Your task to perform on an android device: Add "logitech g910" to the cart on bestbuy, then select checkout. Image 0: 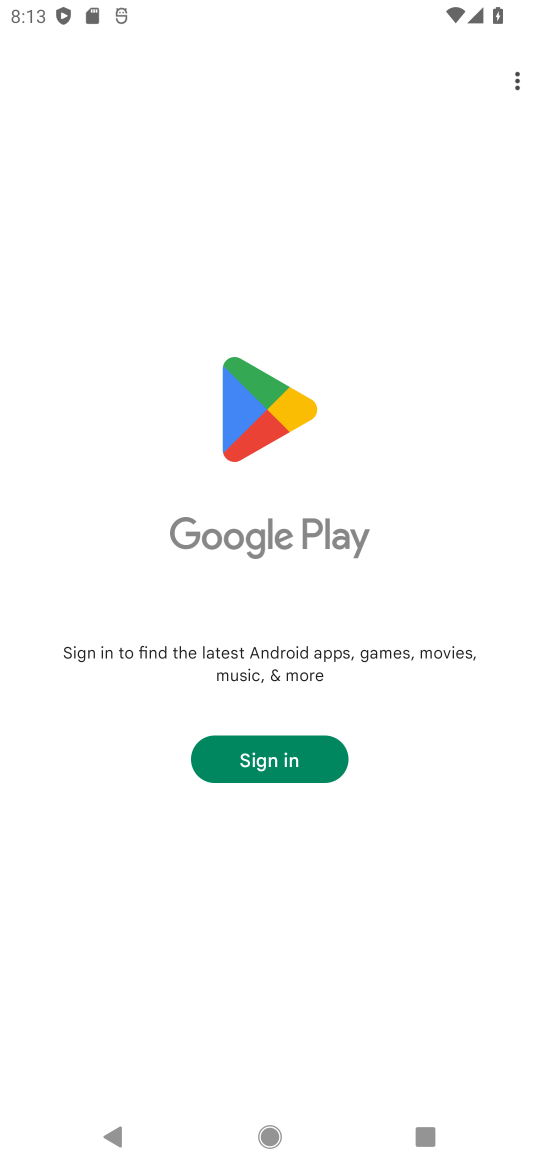
Step 0: click (279, 763)
Your task to perform on an android device: Add "logitech g910" to the cart on bestbuy, then select checkout. Image 1: 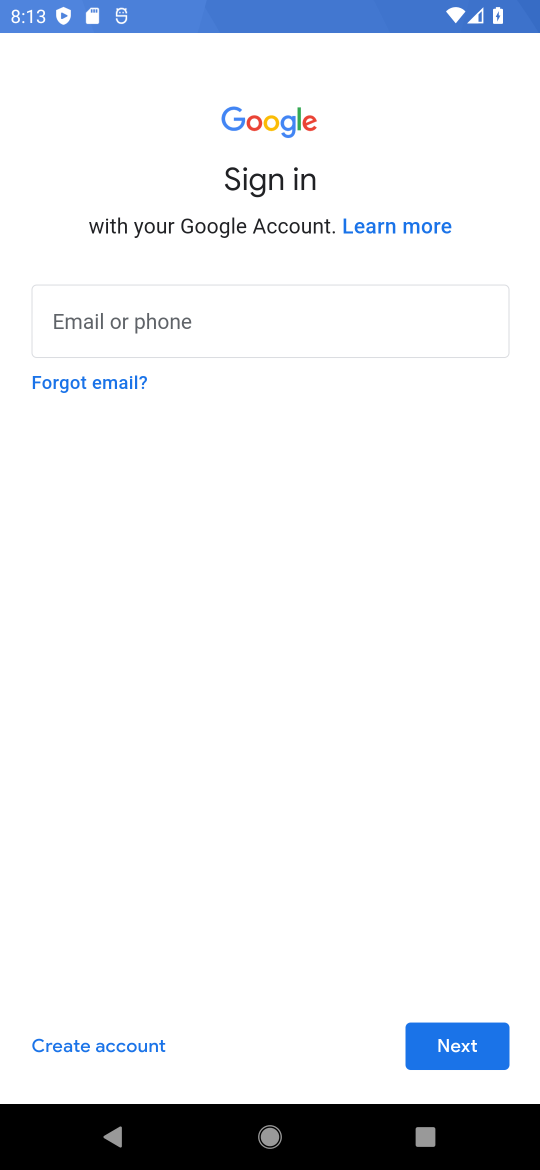
Step 1: press back button
Your task to perform on an android device: Add "logitech g910" to the cart on bestbuy, then select checkout. Image 2: 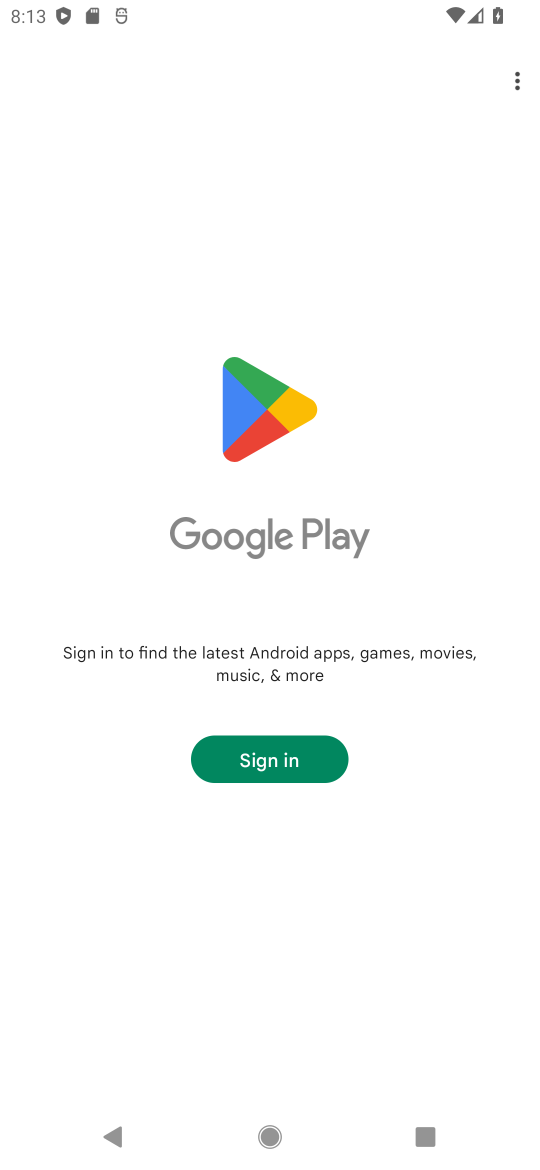
Step 2: press back button
Your task to perform on an android device: Add "logitech g910" to the cart on bestbuy, then select checkout. Image 3: 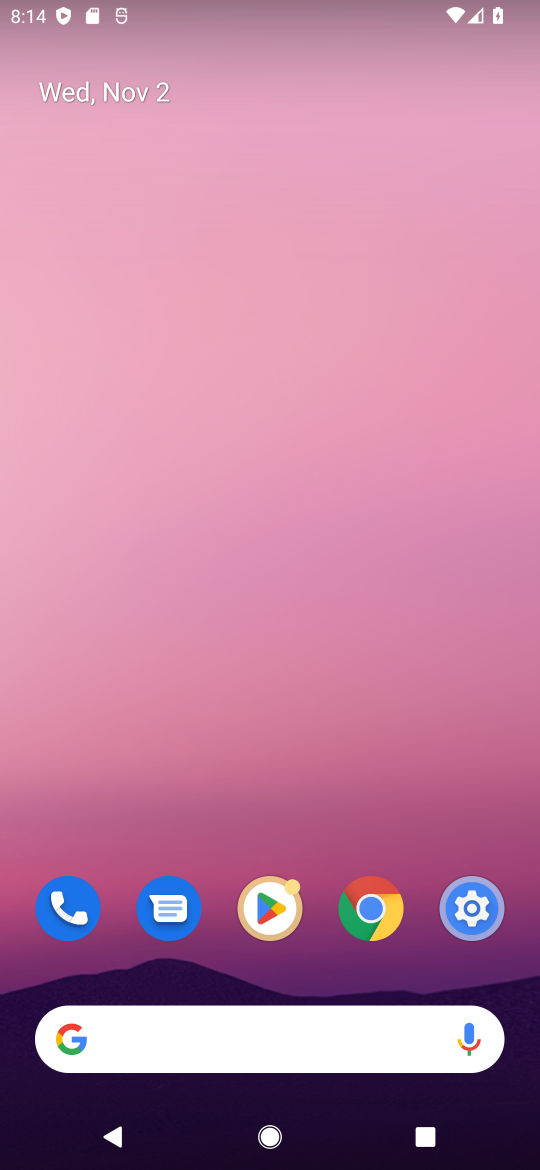
Step 3: click (332, 1020)
Your task to perform on an android device: Add "logitech g910" to the cart on bestbuy, then select checkout. Image 4: 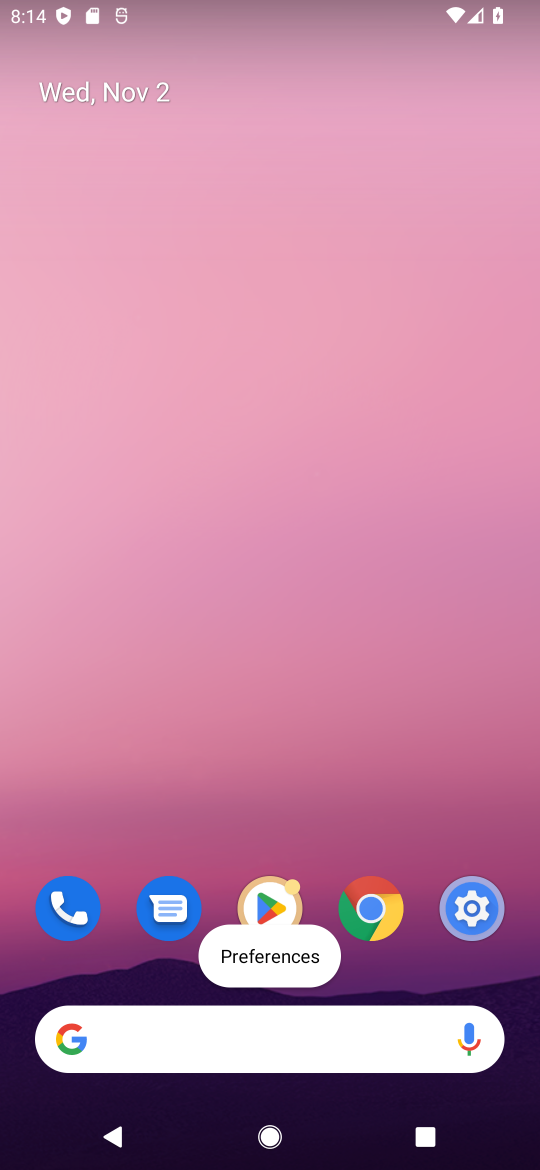
Step 4: click (279, 1057)
Your task to perform on an android device: Add "logitech g910" to the cart on bestbuy, then select checkout. Image 5: 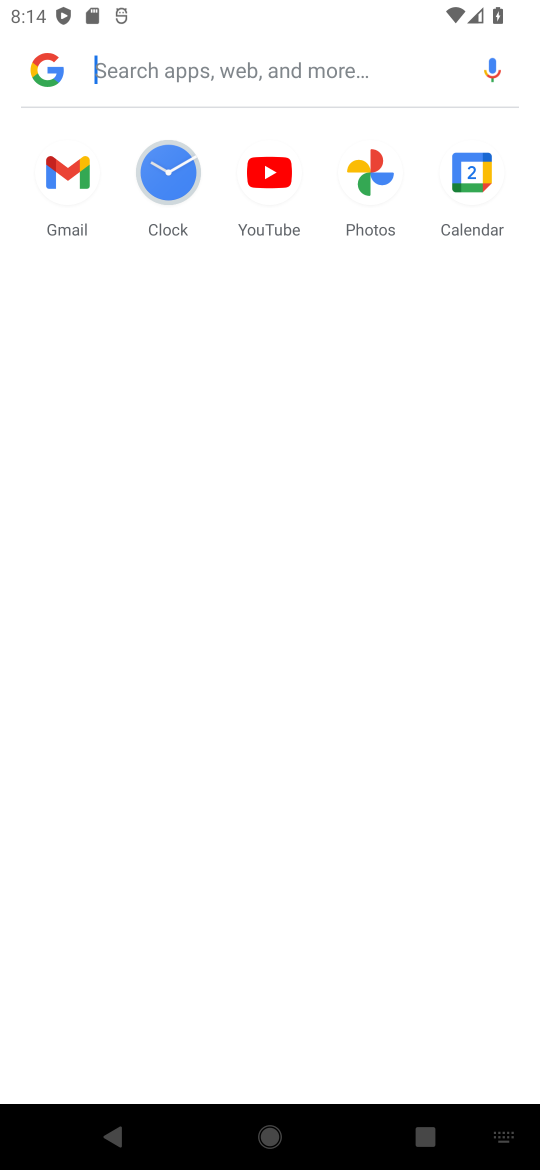
Step 5: type "bestbuy"
Your task to perform on an android device: Add "logitech g910" to the cart on bestbuy, then select checkout. Image 6: 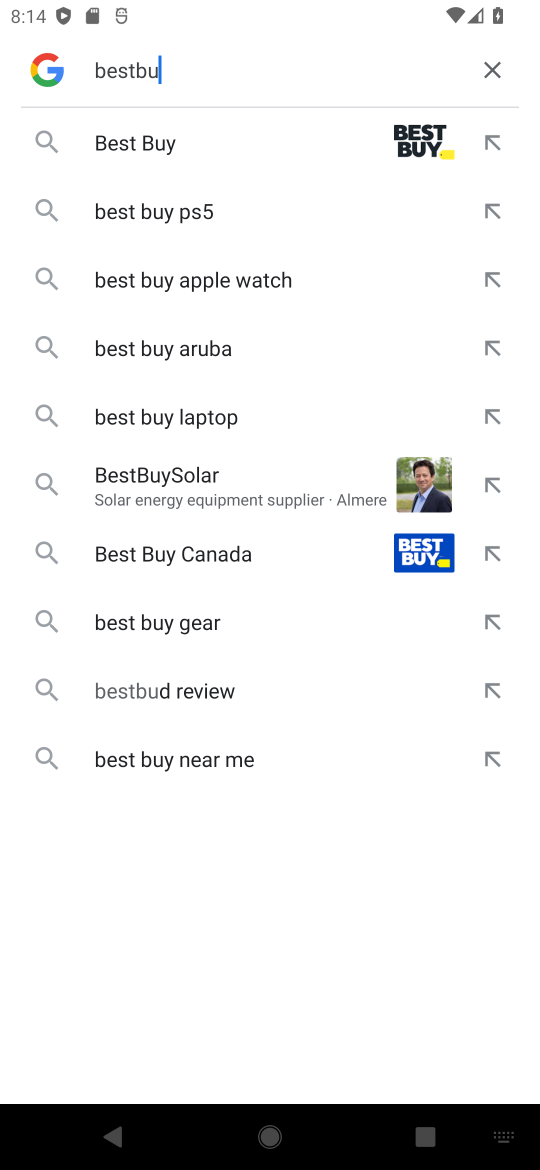
Step 6: type ""
Your task to perform on an android device: Add "logitech g910" to the cart on bestbuy, then select checkout. Image 7: 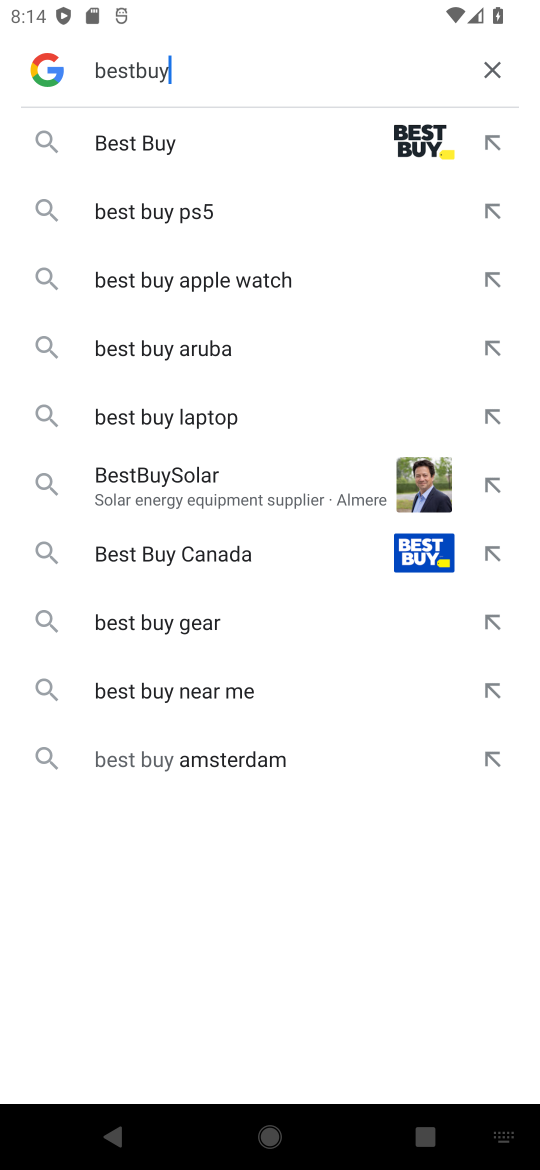
Step 7: press enter
Your task to perform on an android device: Add "logitech g910" to the cart on bestbuy, then select checkout. Image 8: 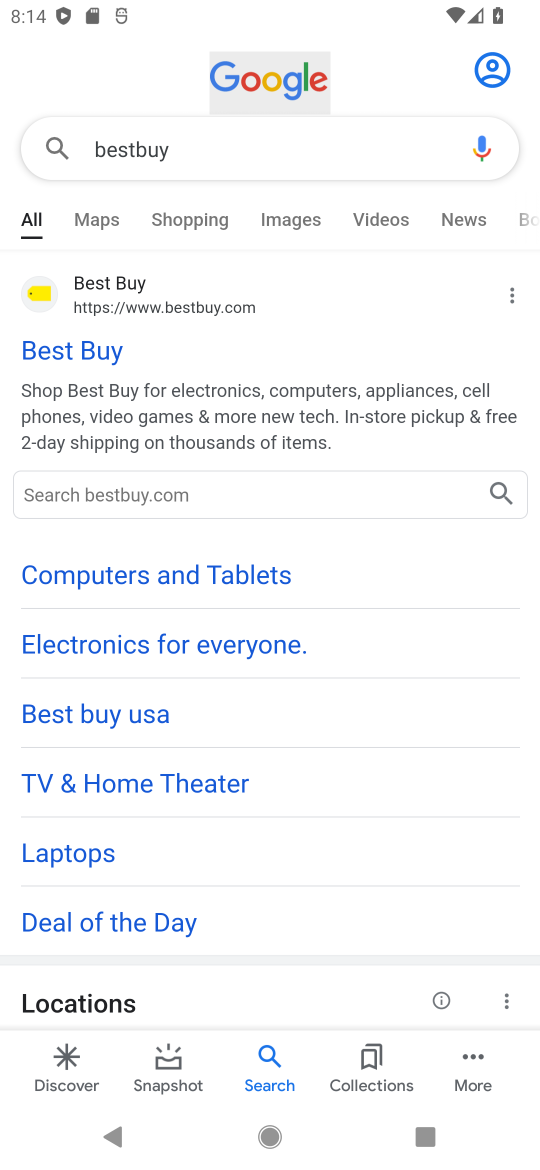
Step 8: click (189, 312)
Your task to perform on an android device: Add "logitech g910" to the cart on bestbuy, then select checkout. Image 9: 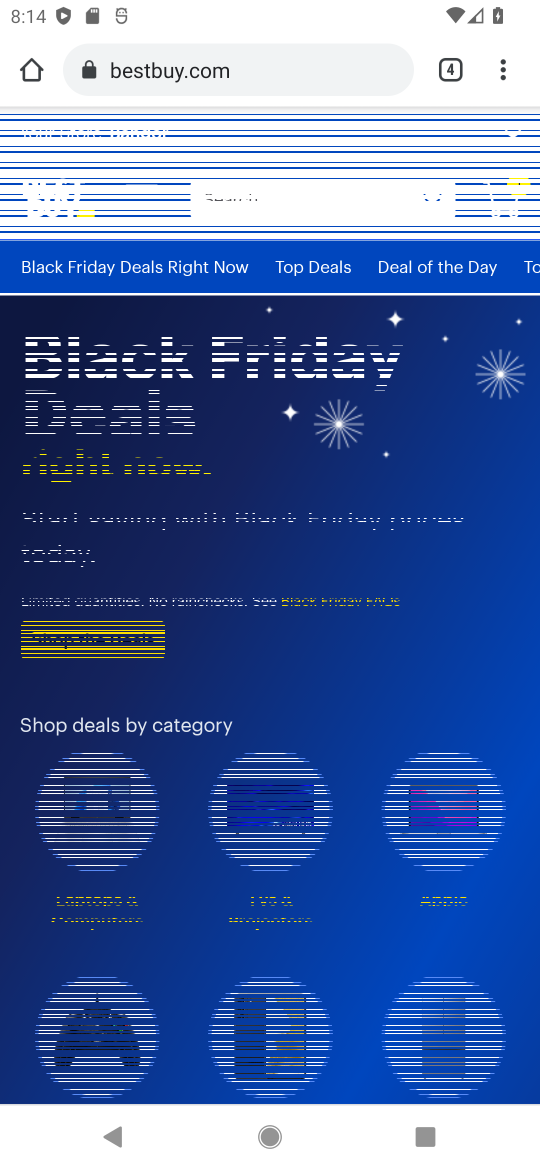
Step 9: click (258, 220)
Your task to perform on an android device: Add "logitech g910" to the cart on bestbuy, then select checkout. Image 10: 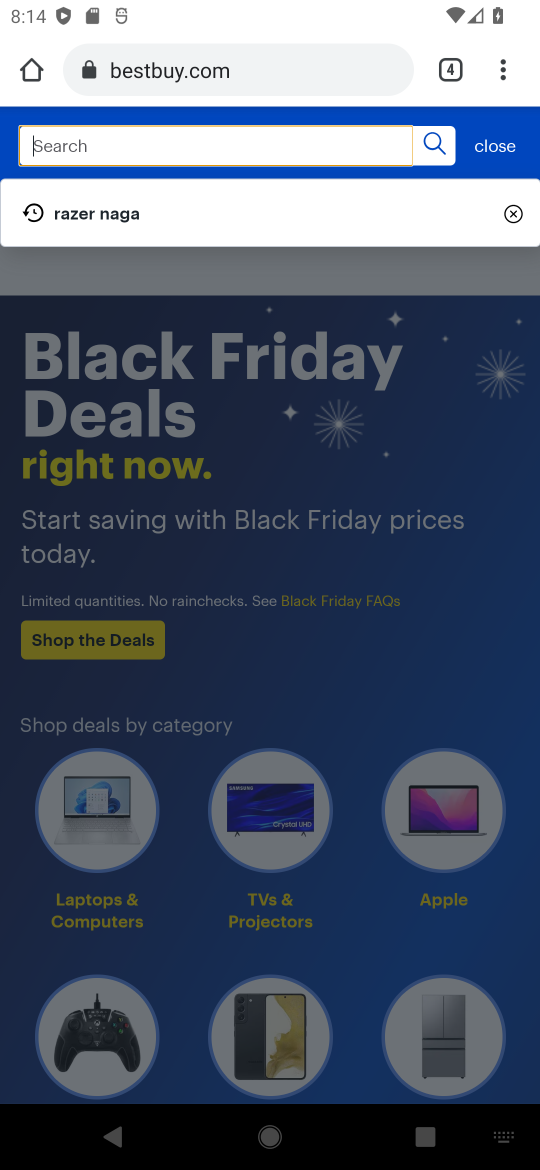
Step 10: click (248, 203)
Your task to perform on an android device: Add "logitech g910" to the cart on bestbuy, then select checkout. Image 11: 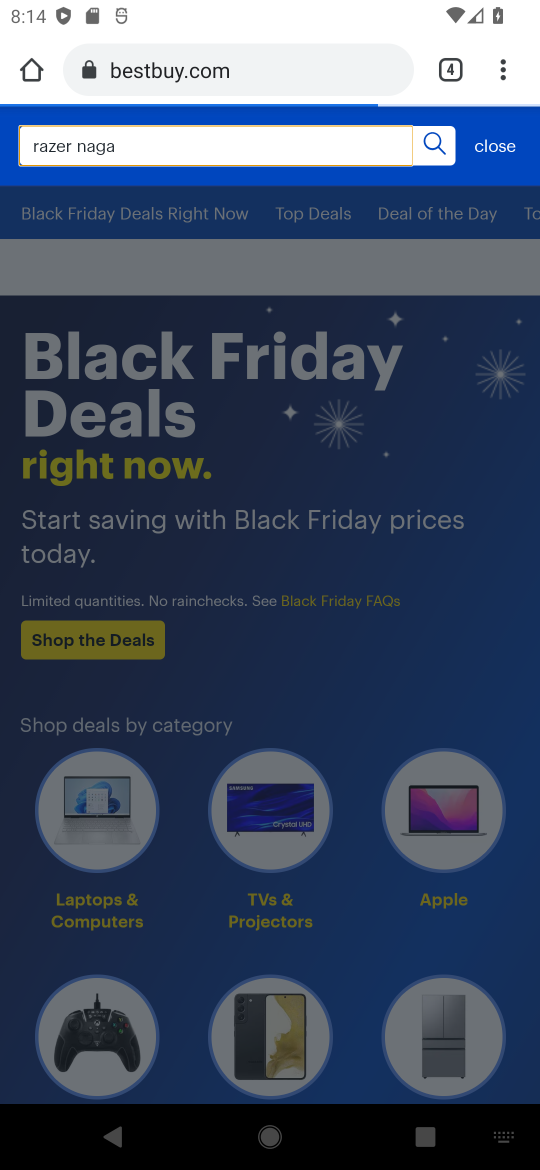
Step 11: click (248, 203)
Your task to perform on an android device: Add "logitech g910" to the cart on bestbuy, then select checkout. Image 12: 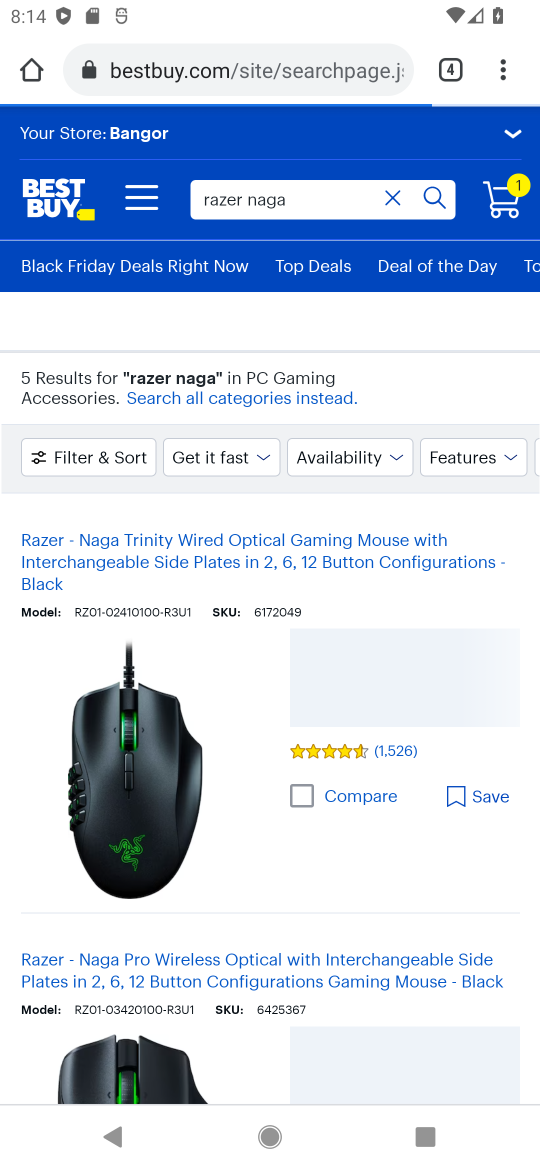
Step 12: click (396, 209)
Your task to perform on an android device: Add "logitech g910" to the cart on bestbuy, then select checkout. Image 13: 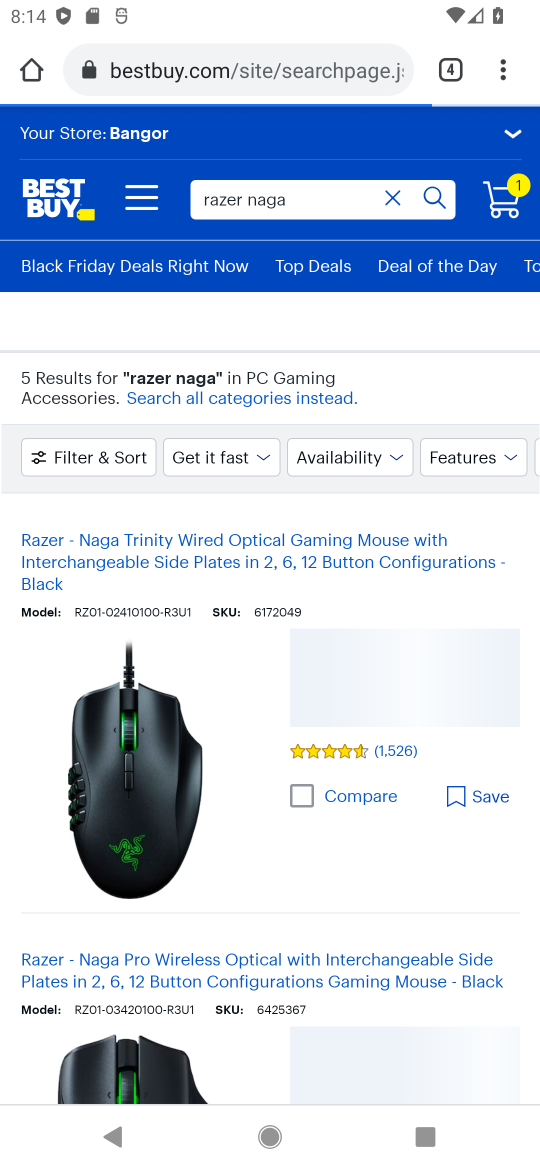
Step 13: click (394, 200)
Your task to perform on an android device: Add "logitech g910" to the cart on bestbuy, then select checkout. Image 14: 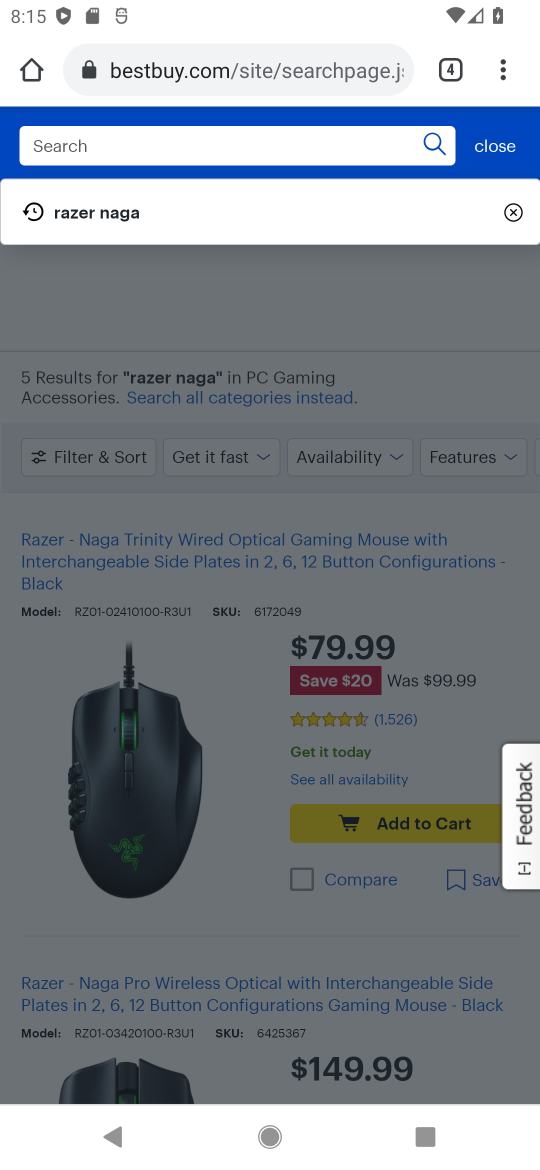
Step 14: click (510, 206)
Your task to perform on an android device: Add "logitech g910" to the cart on bestbuy, then select checkout. Image 15: 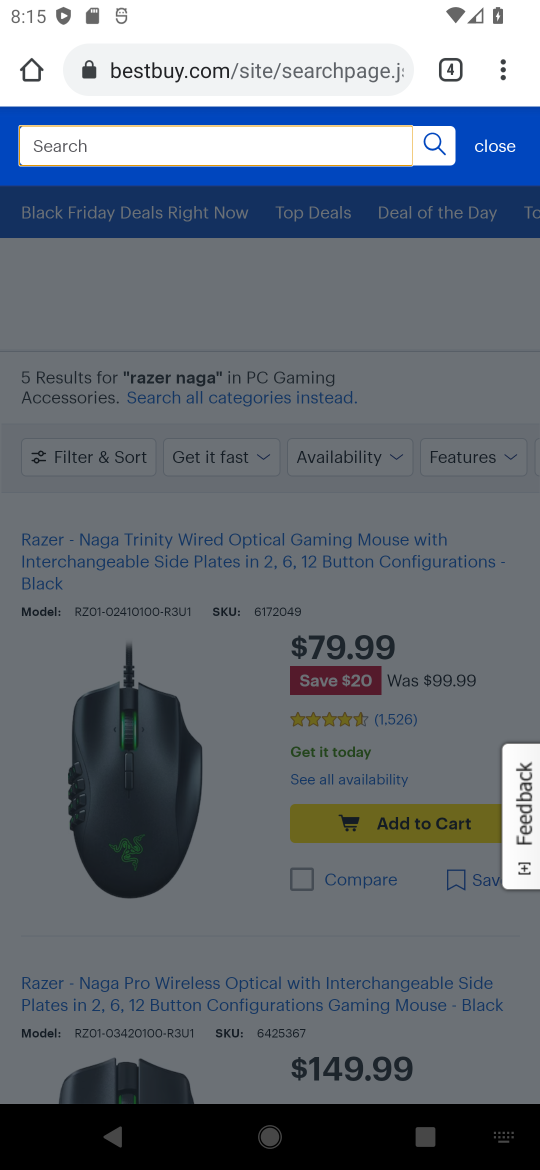
Step 15: click (225, 147)
Your task to perform on an android device: Add "logitech g910" to the cart on bestbuy, then select checkout. Image 16: 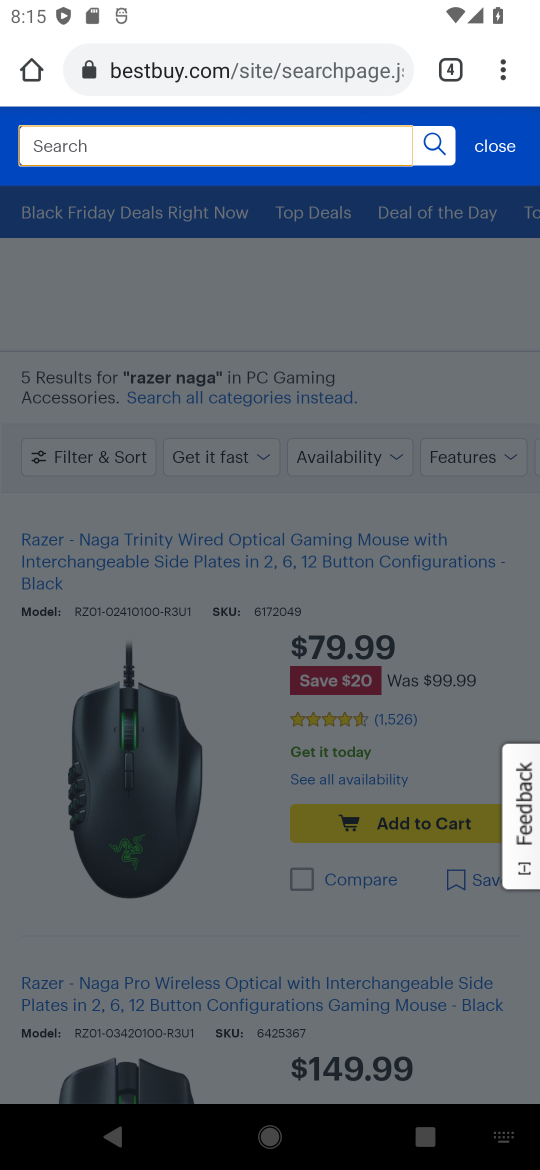
Step 16: press enter
Your task to perform on an android device: Add "logitech g910" to the cart on bestbuy, then select checkout. Image 17: 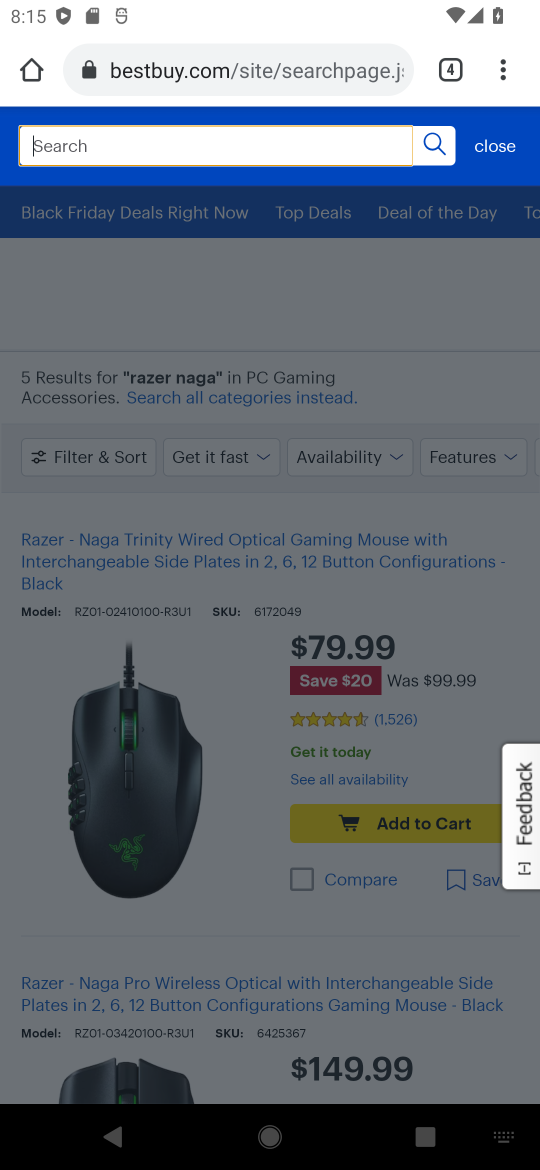
Step 17: type ""logitech g910"
Your task to perform on an android device: Add "logitech g910" to the cart on bestbuy, then select checkout. Image 18: 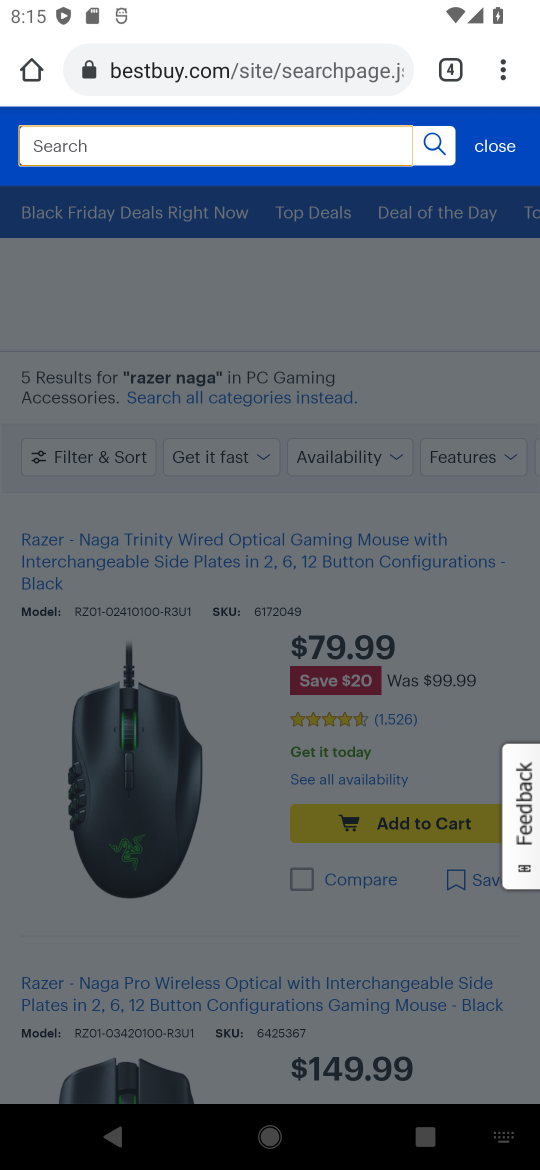
Step 18: type ""
Your task to perform on an android device: Add "logitech g910" to the cart on bestbuy, then select checkout. Image 19: 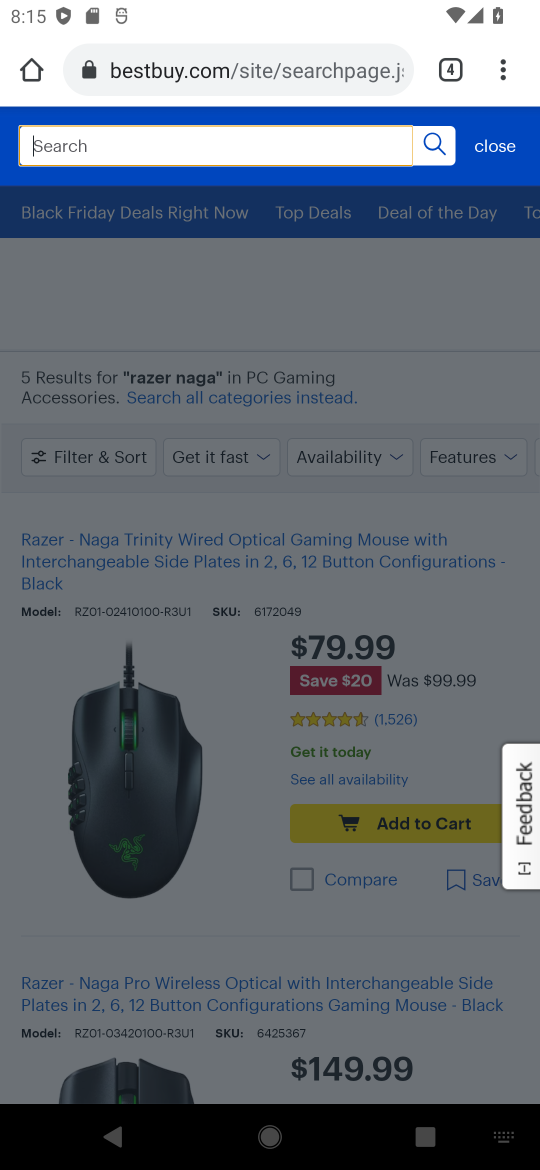
Step 19: press enter
Your task to perform on an android device: Add "logitech g910" to the cart on bestbuy, then select checkout. Image 20: 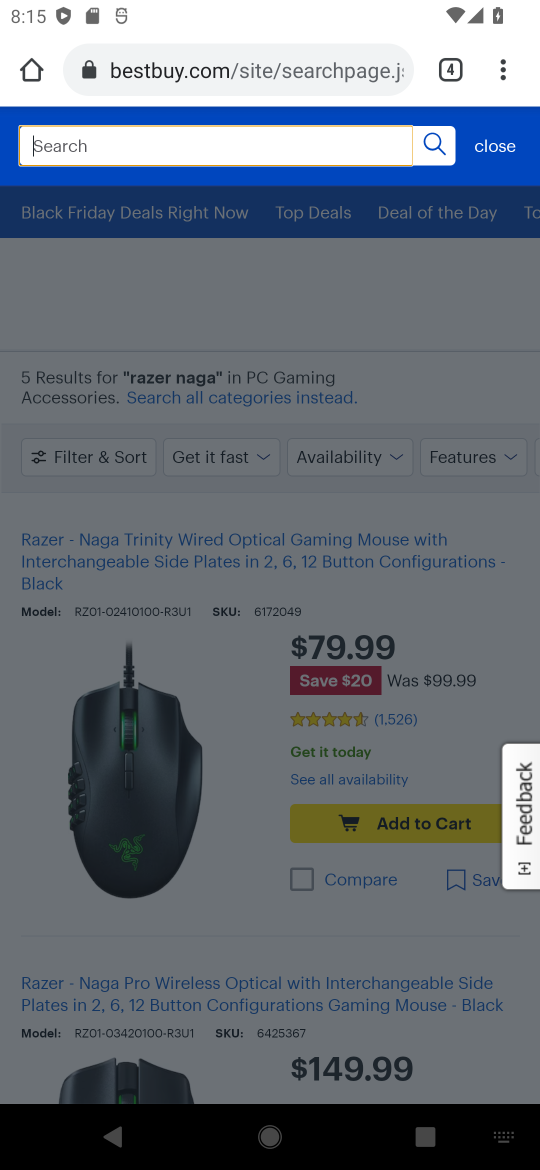
Step 20: press enter
Your task to perform on an android device: Add "logitech g910" to the cart on bestbuy, then select checkout. Image 21: 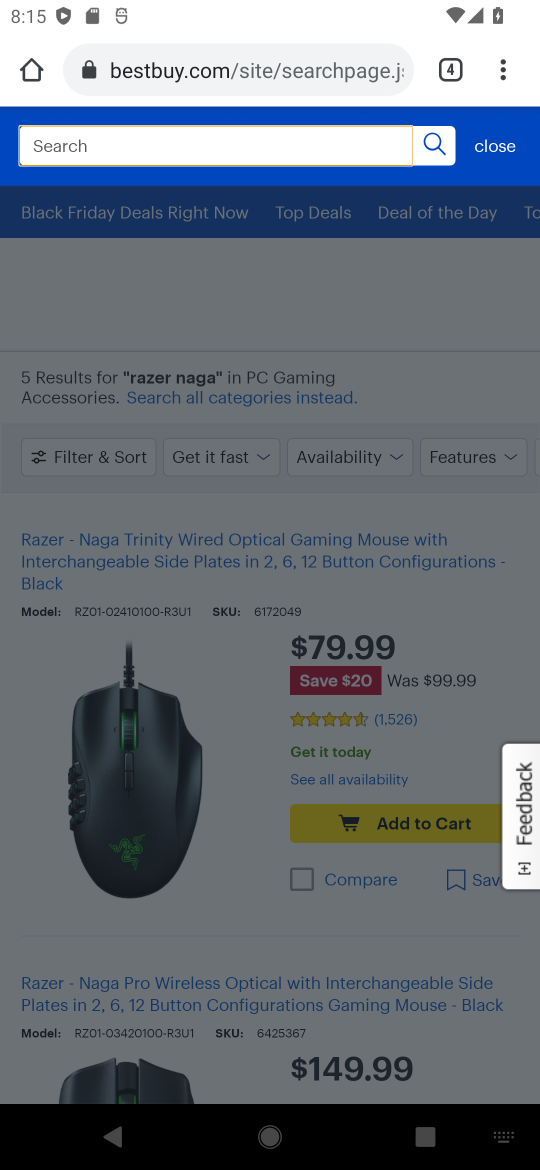
Step 21: type ""logitech g910"
Your task to perform on an android device: Add "logitech g910" to the cart on bestbuy, then select checkout. Image 22: 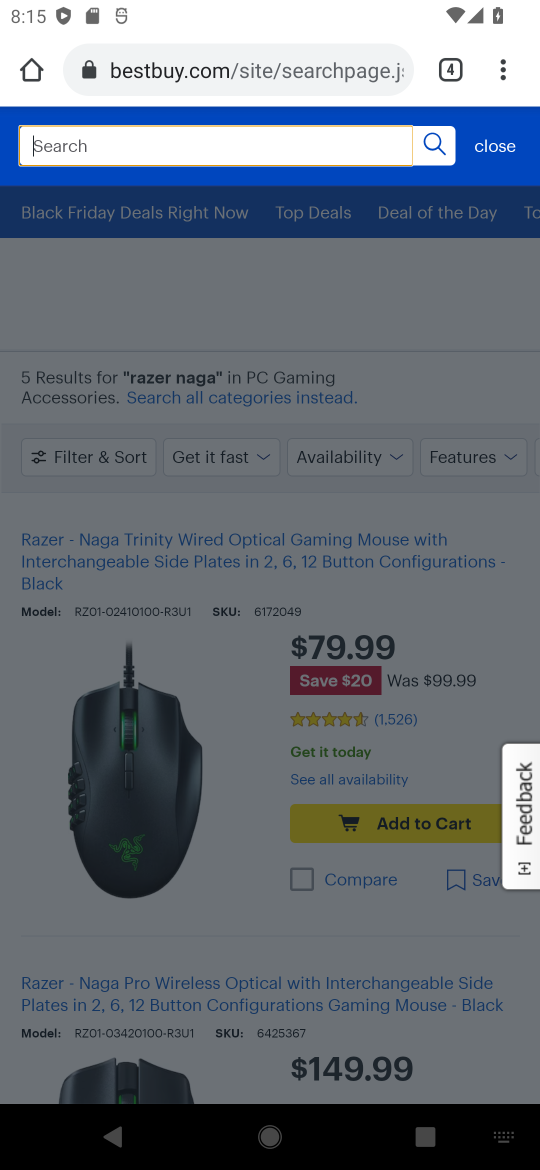
Step 22: press enter
Your task to perform on an android device: Add "logitech g910" to the cart on bestbuy, then select checkout. Image 23: 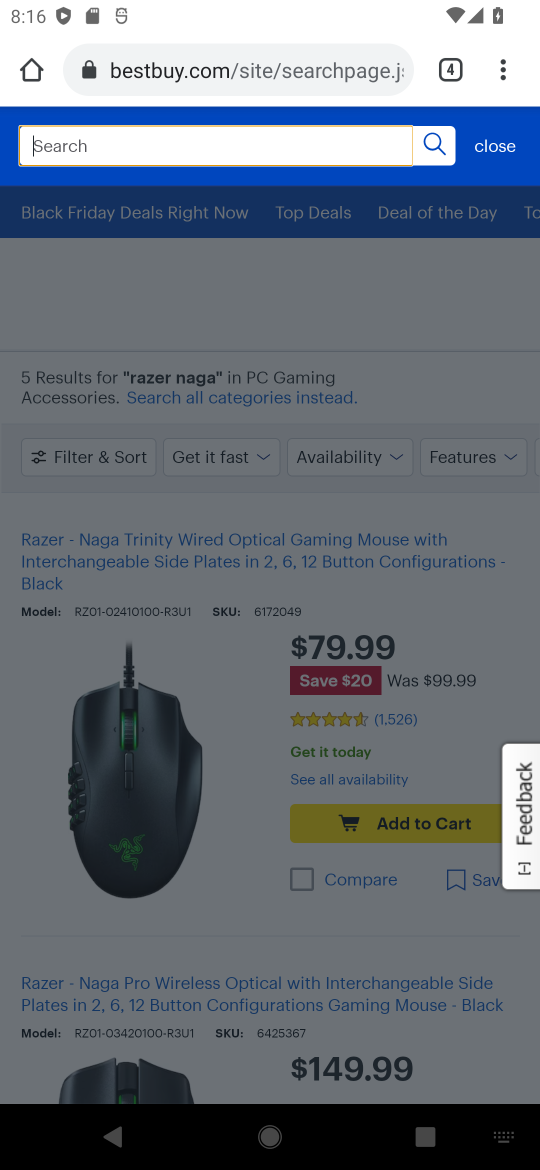
Step 23: press enter
Your task to perform on an android device: Add "logitech g910" to the cart on bestbuy, then select checkout. Image 24: 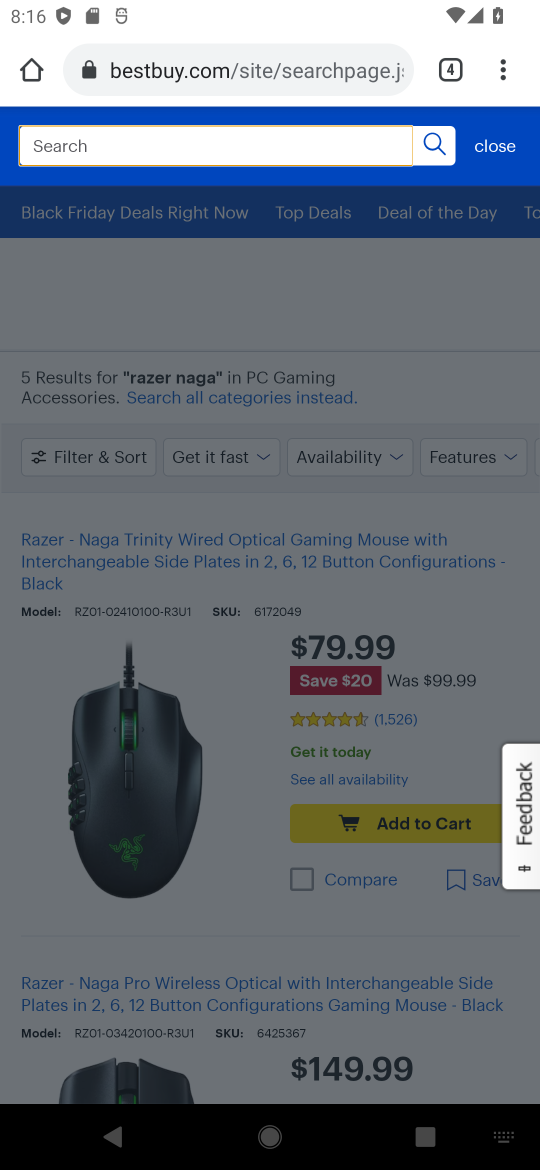
Step 24: press enter
Your task to perform on an android device: Add "logitech g910" to the cart on bestbuy, then select checkout. Image 25: 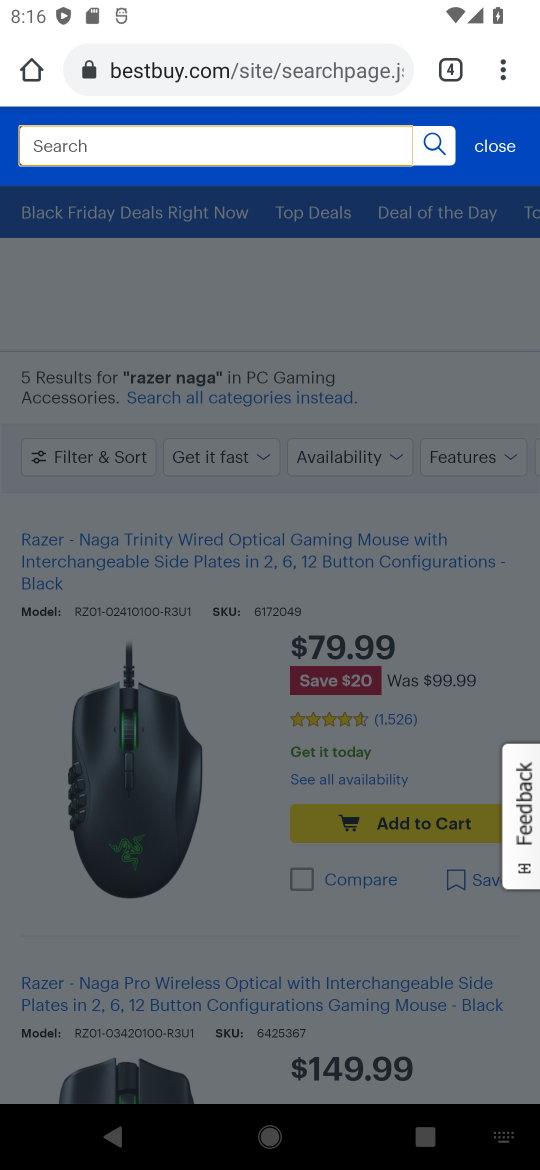
Step 25: press enter
Your task to perform on an android device: Add "logitech g910" to the cart on bestbuy, then select checkout. Image 26: 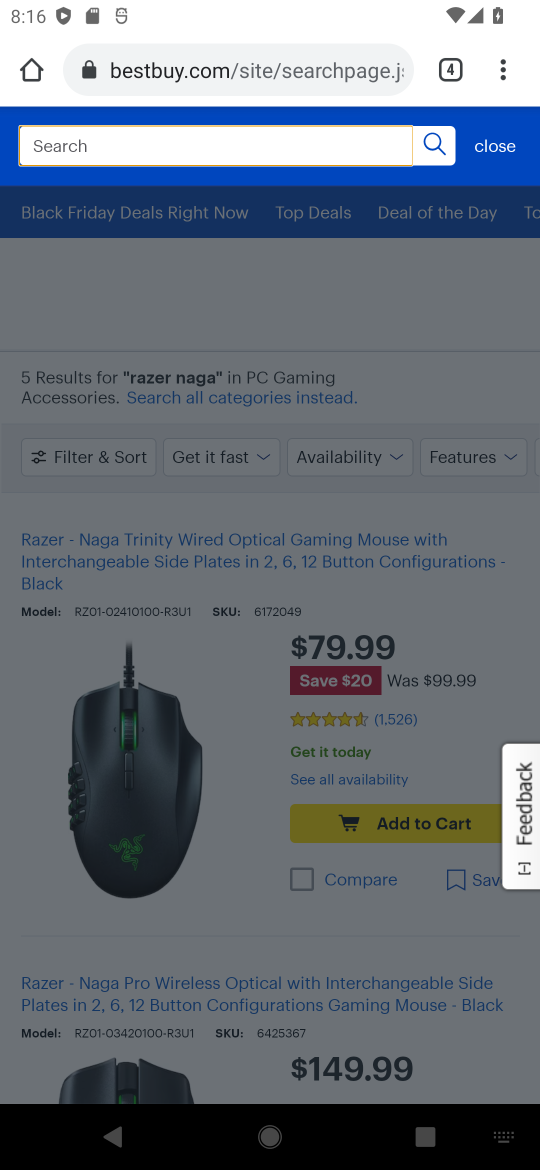
Step 26: press enter
Your task to perform on an android device: Add "logitech g910" to the cart on bestbuy, then select checkout. Image 27: 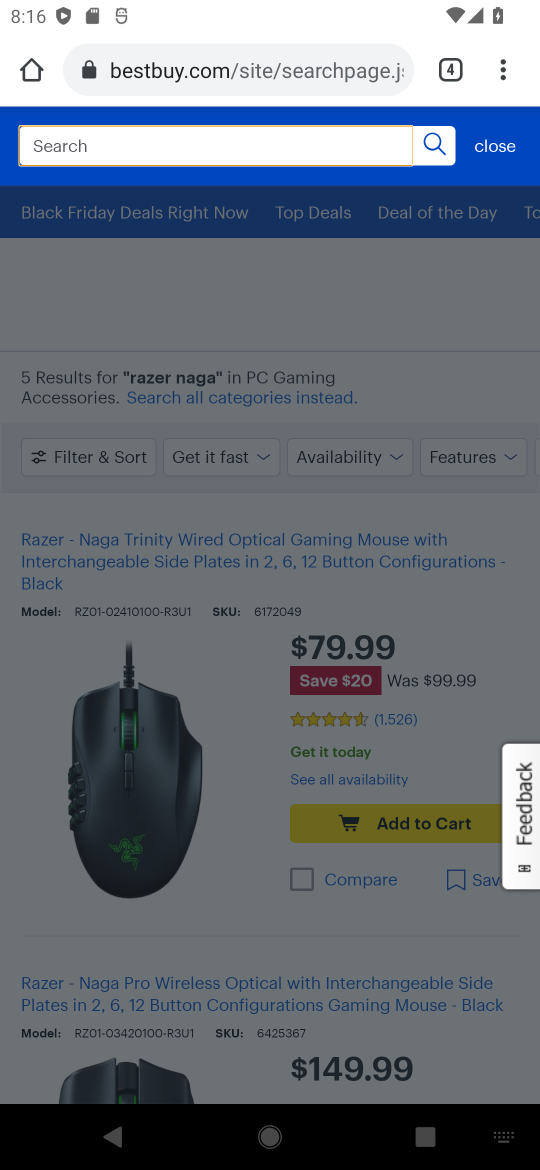
Step 27: click (166, 140)
Your task to perform on an android device: Add "logitech g910" to the cart on bestbuy, then select checkout. Image 28: 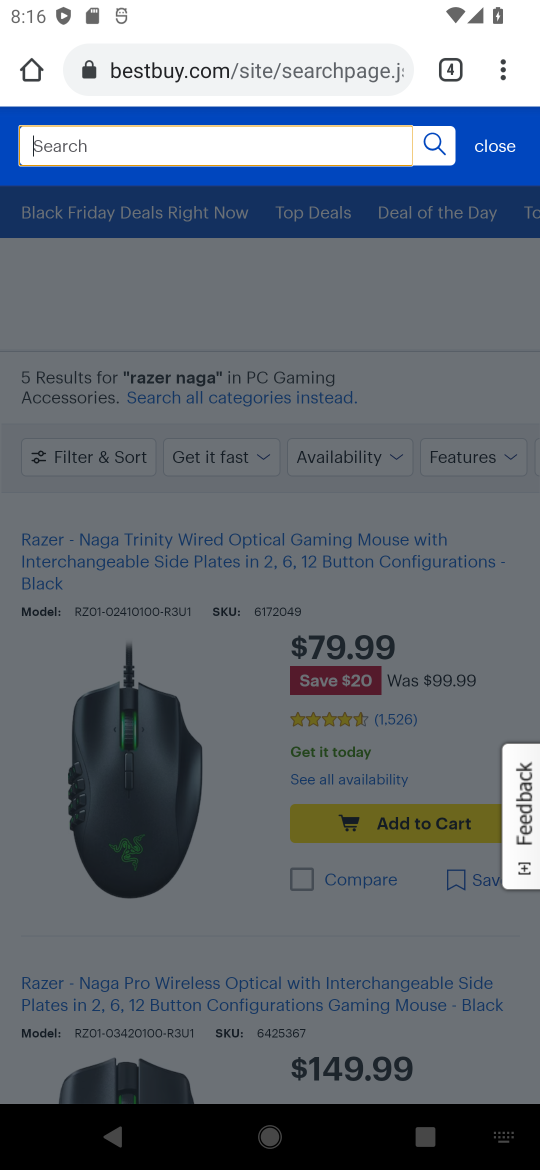
Step 28: click (166, 140)
Your task to perform on an android device: Add "logitech g910" to the cart on bestbuy, then select checkout. Image 29: 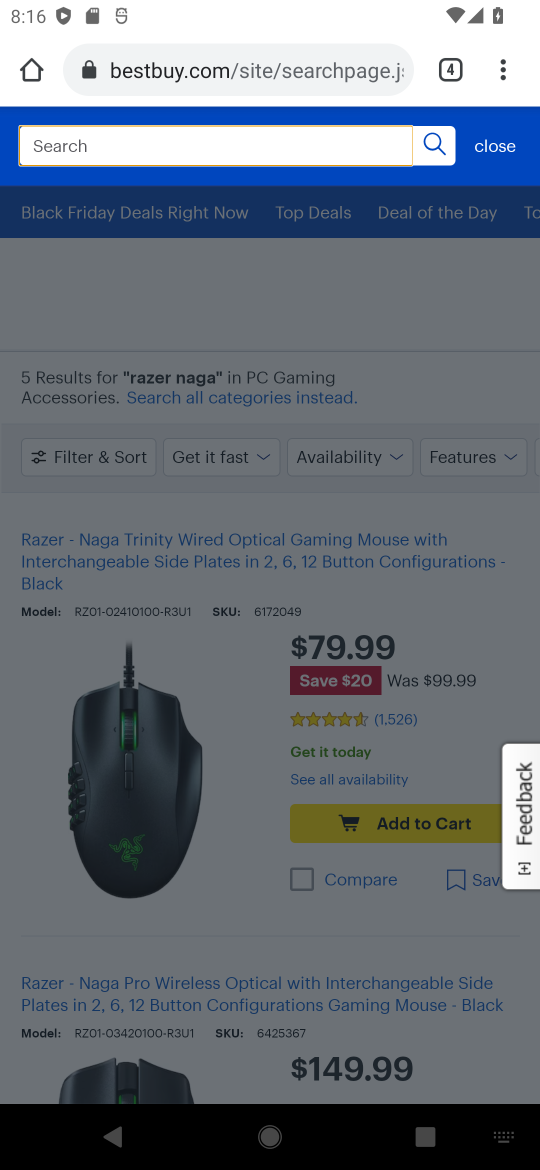
Step 29: type ""logitech g910"
Your task to perform on an android device: Add "logitech g910" to the cart on bestbuy, then select checkout. Image 30: 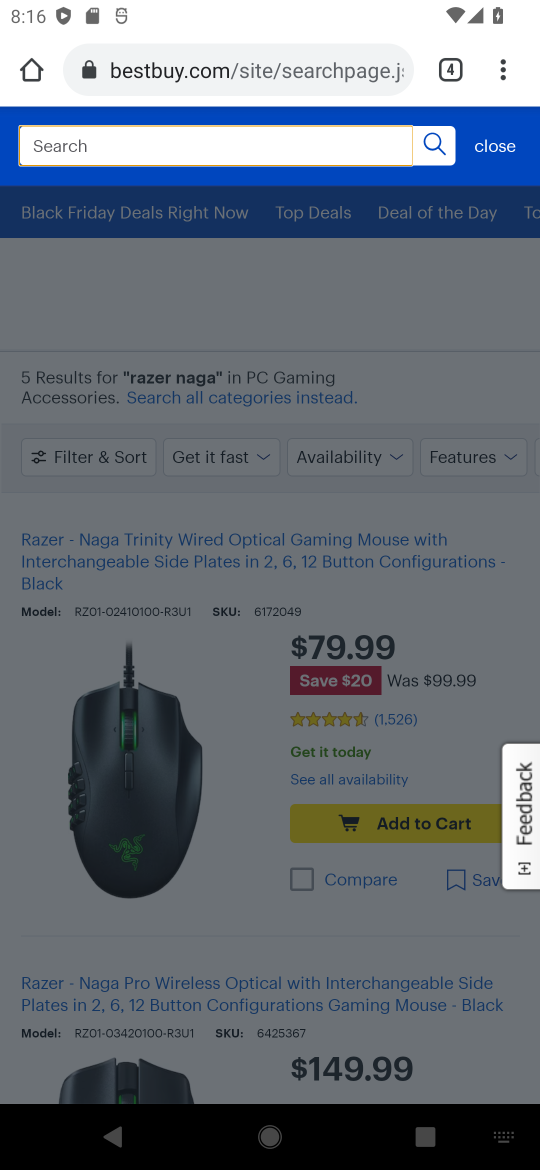
Step 30: type ""
Your task to perform on an android device: Add "logitech g910" to the cart on bestbuy, then select checkout. Image 31: 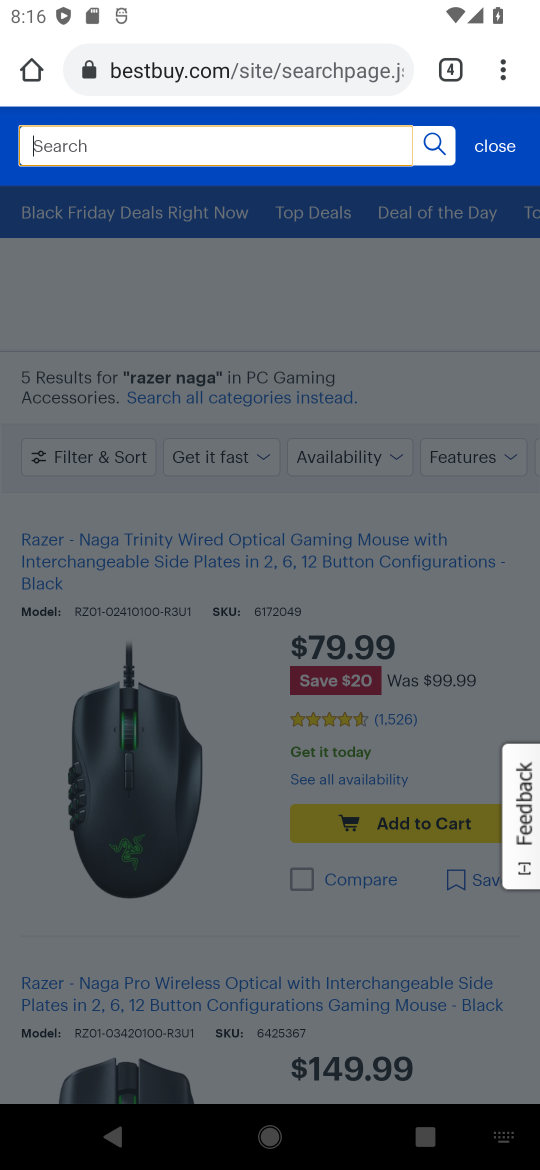
Step 31: press enter
Your task to perform on an android device: Add "logitech g910" to the cart on bestbuy, then select checkout. Image 32: 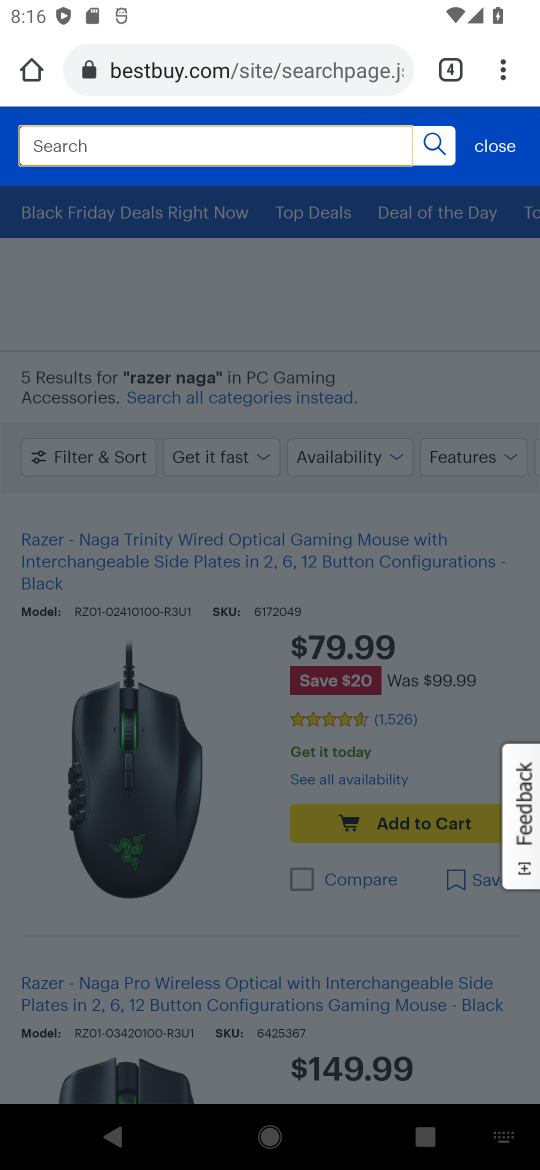
Step 32: press enter
Your task to perform on an android device: Add "logitech g910" to the cart on bestbuy, then select checkout. Image 33: 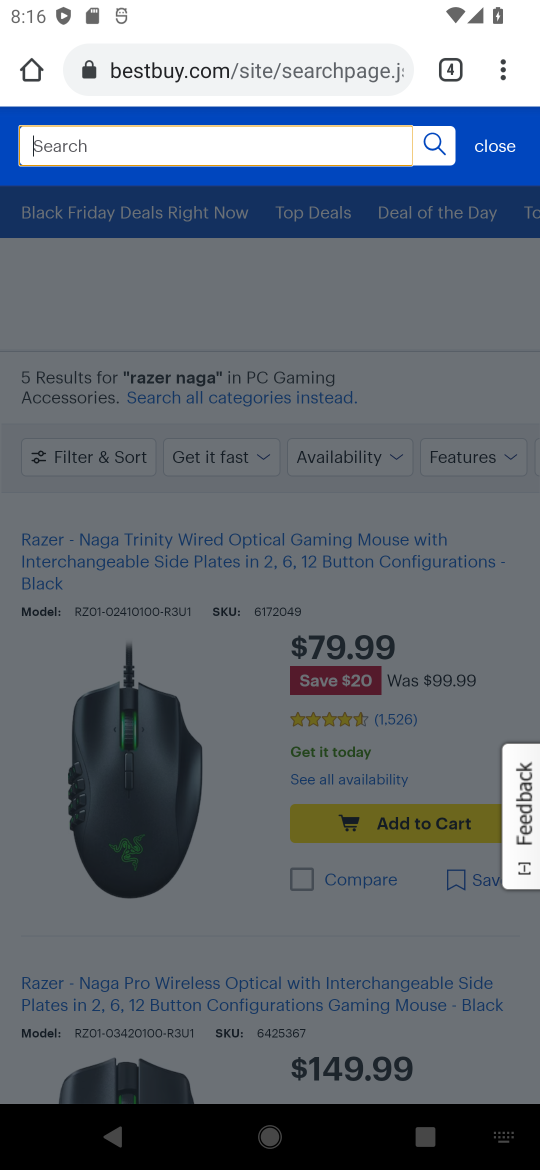
Step 33: press enter
Your task to perform on an android device: Add "logitech g910" to the cart on bestbuy, then select checkout. Image 34: 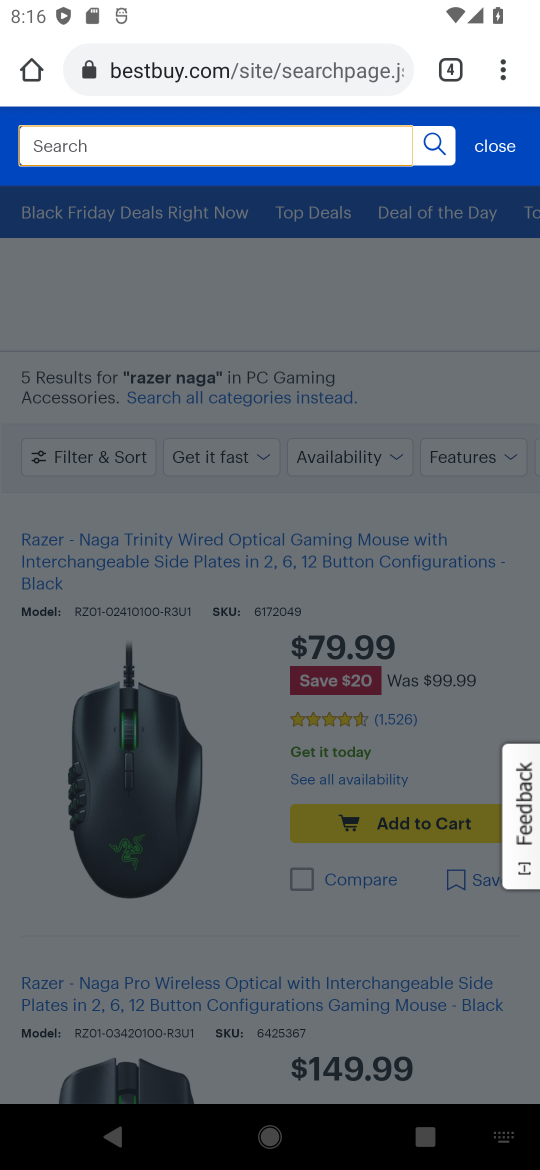
Step 34: press enter
Your task to perform on an android device: Add "logitech g910" to the cart on bestbuy, then select checkout. Image 35: 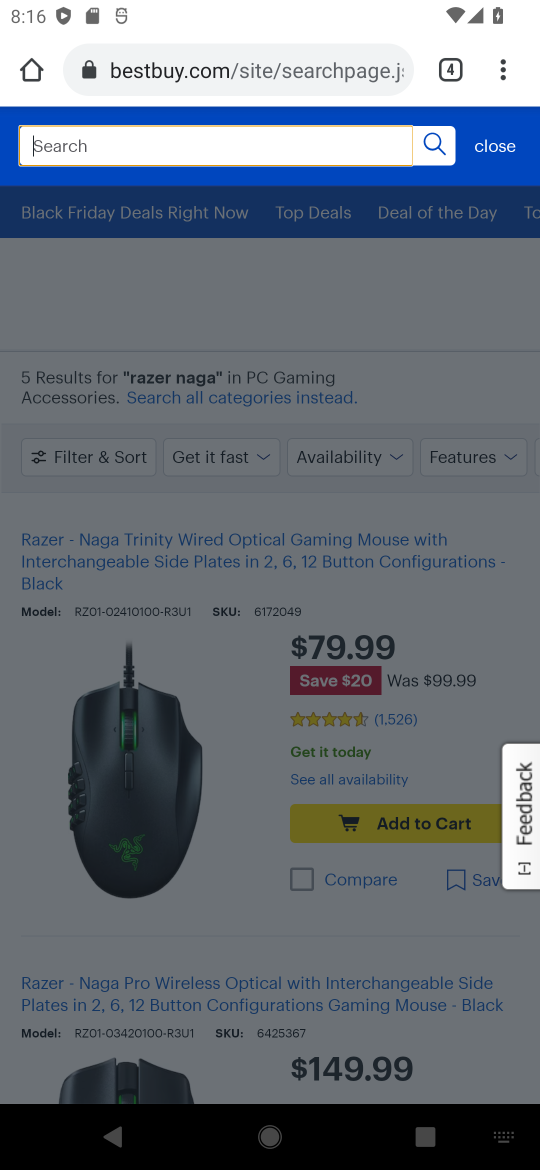
Step 35: press enter
Your task to perform on an android device: Add "logitech g910" to the cart on bestbuy, then select checkout. Image 36: 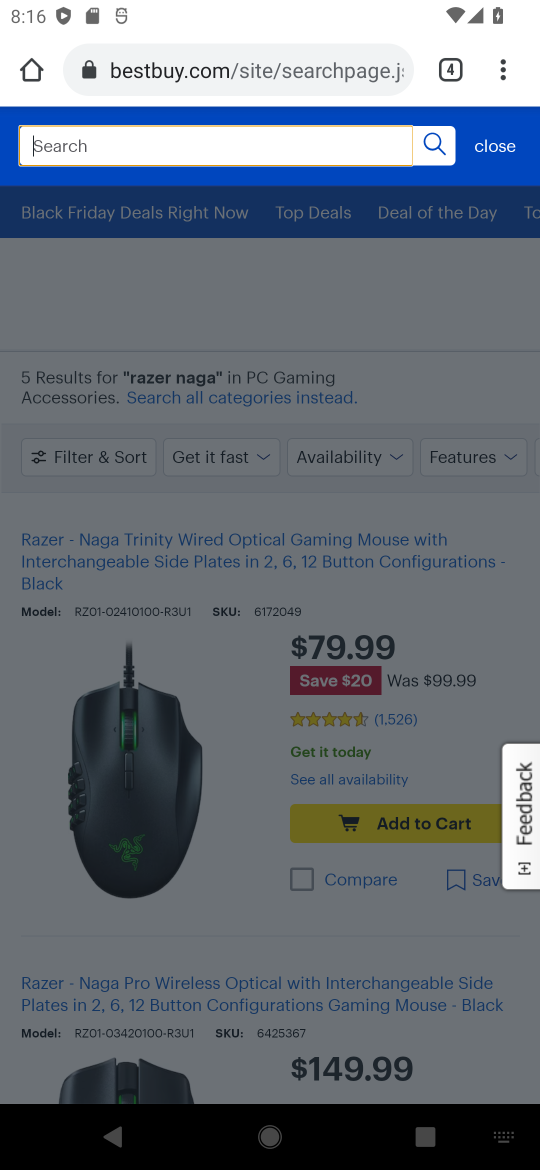
Step 36: task complete